Your task to perform on an android device: Open the Play Movies app and select the watchlist tab. Image 0: 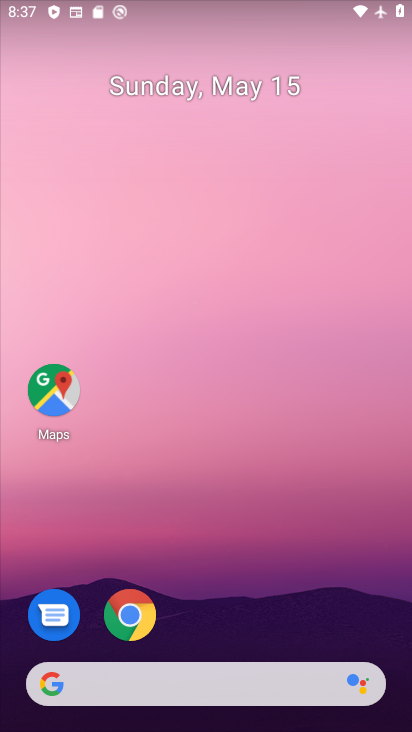
Step 0: drag from (170, 660) to (218, 239)
Your task to perform on an android device: Open the Play Movies app and select the watchlist tab. Image 1: 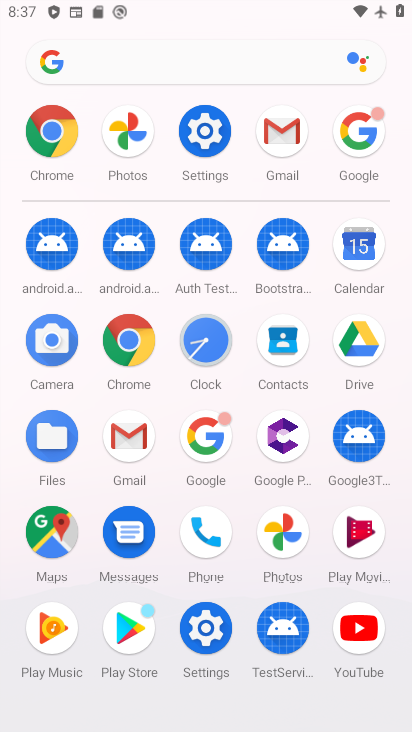
Step 1: click (360, 544)
Your task to perform on an android device: Open the Play Movies app and select the watchlist tab. Image 2: 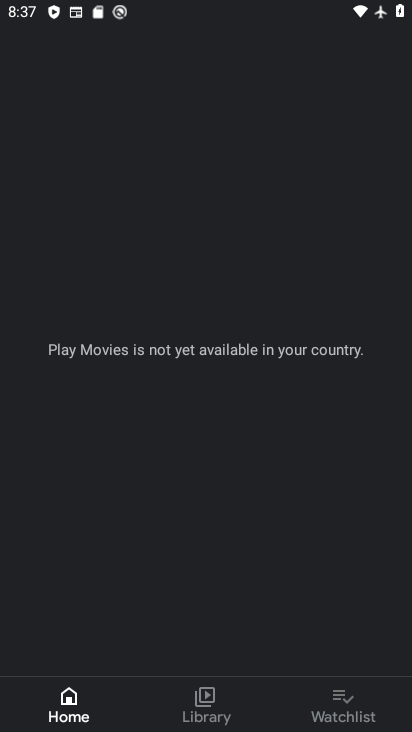
Step 2: click (340, 714)
Your task to perform on an android device: Open the Play Movies app and select the watchlist tab. Image 3: 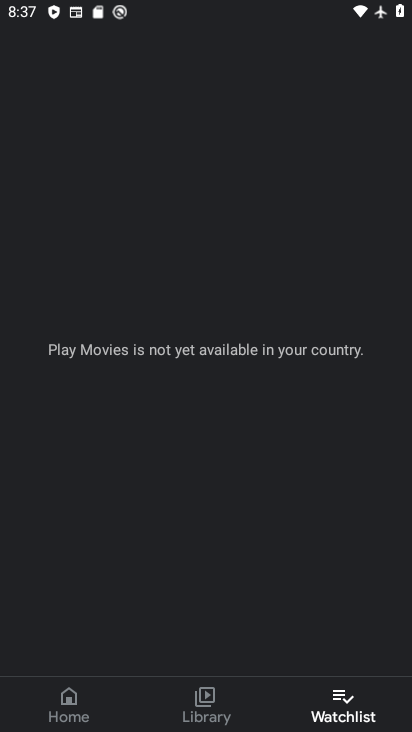
Step 3: task complete